Your task to perform on an android device: turn smart compose on in the gmail app Image 0: 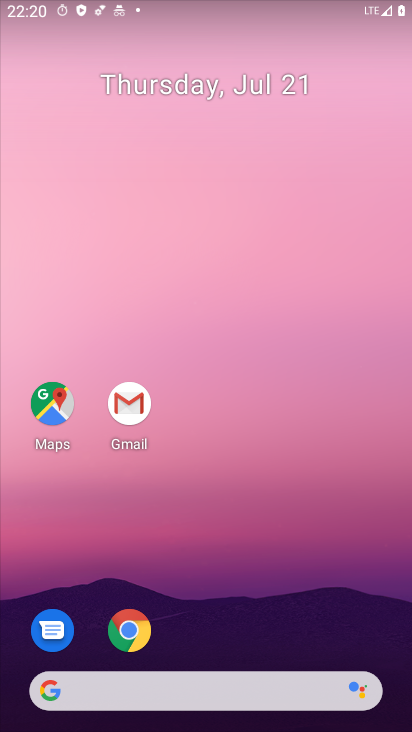
Step 0: drag from (203, 496) to (173, 50)
Your task to perform on an android device: turn smart compose on in the gmail app Image 1: 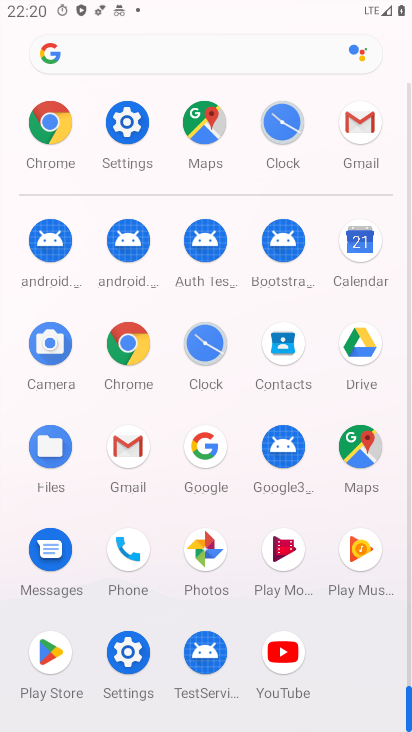
Step 1: click (114, 446)
Your task to perform on an android device: turn smart compose on in the gmail app Image 2: 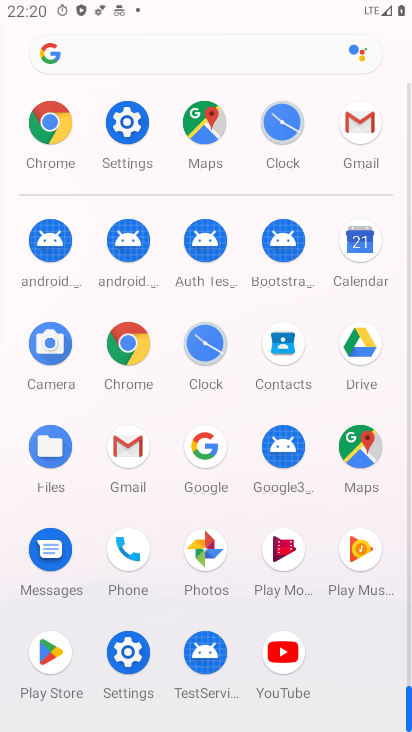
Step 2: click (130, 446)
Your task to perform on an android device: turn smart compose on in the gmail app Image 3: 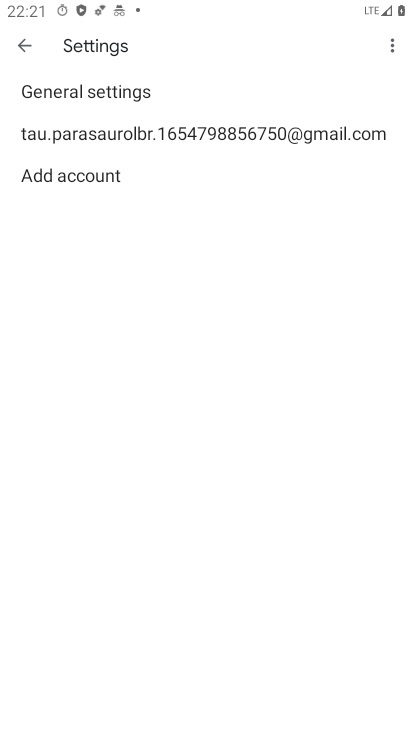
Step 3: click (101, 148)
Your task to perform on an android device: turn smart compose on in the gmail app Image 4: 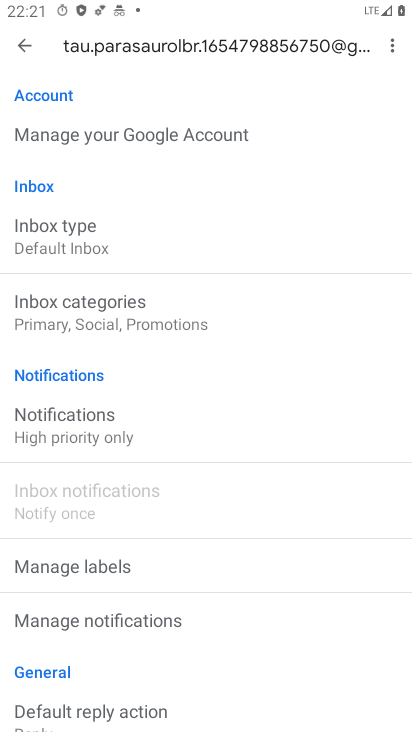
Step 4: drag from (145, 383) to (202, 139)
Your task to perform on an android device: turn smart compose on in the gmail app Image 5: 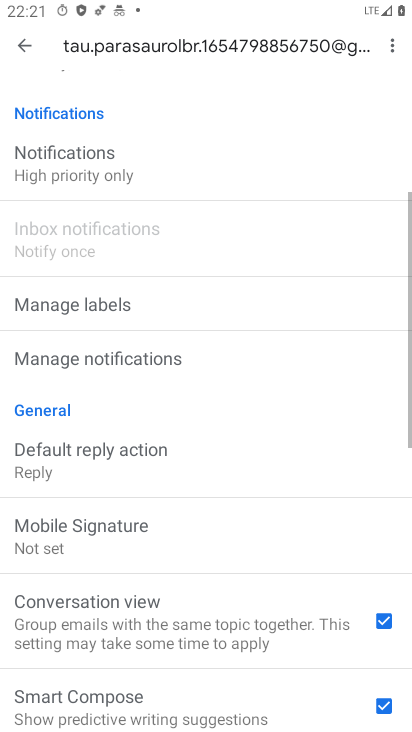
Step 5: drag from (193, 491) to (178, 182)
Your task to perform on an android device: turn smart compose on in the gmail app Image 6: 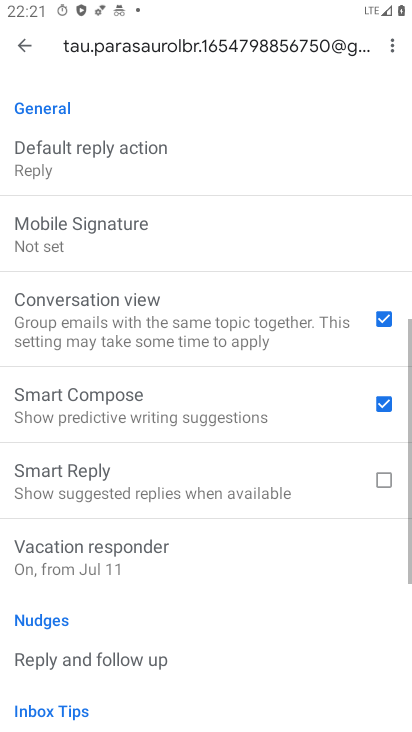
Step 6: drag from (186, 445) to (182, 245)
Your task to perform on an android device: turn smart compose on in the gmail app Image 7: 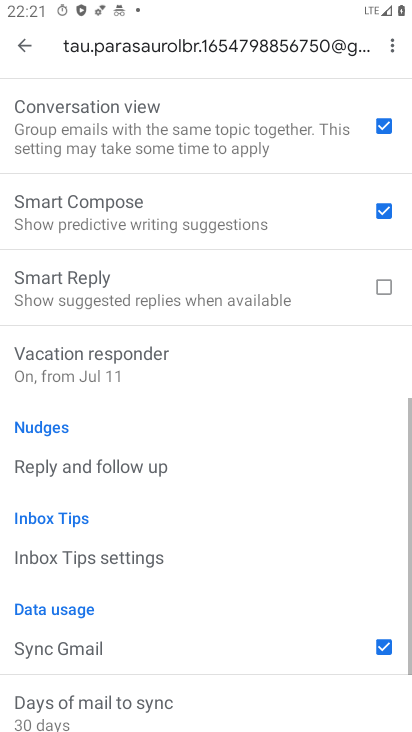
Step 7: drag from (174, 472) to (156, 245)
Your task to perform on an android device: turn smart compose on in the gmail app Image 8: 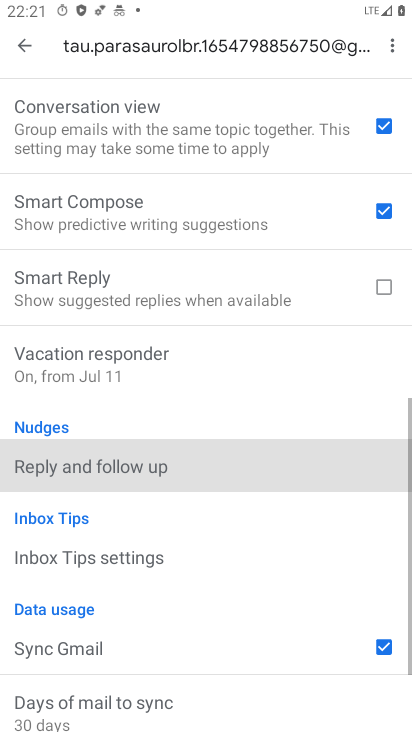
Step 8: drag from (217, 376) to (217, 263)
Your task to perform on an android device: turn smart compose on in the gmail app Image 9: 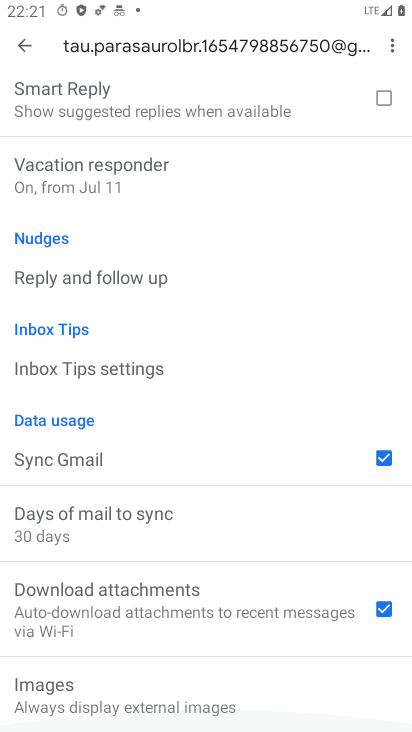
Step 9: click (370, 465)
Your task to perform on an android device: turn smart compose on in the gmail app Image 10: 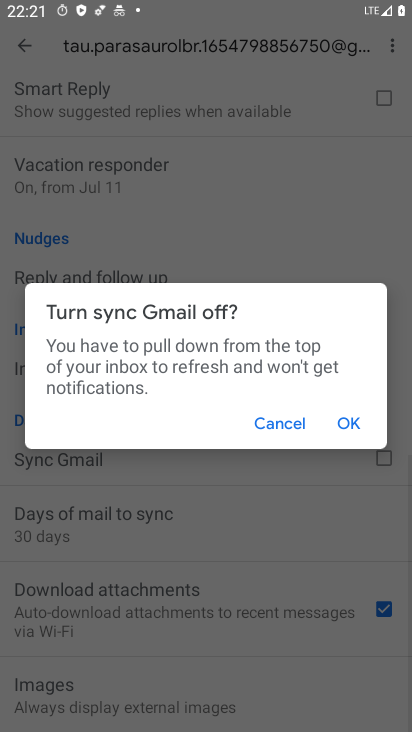
Step 10: click (303, 422)
Your task to perform on an android device: turn smart compose on in the gmail app Image 11: 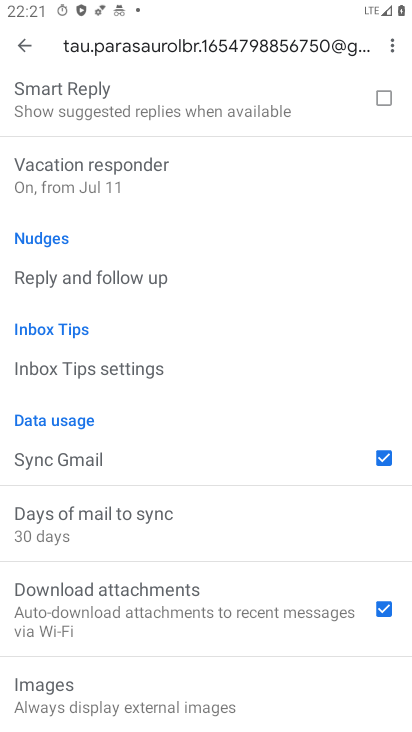
Step 11: drag from (104, 408) to (101, 365)
Your task to perform on an android device: turn smart compose on in the gmail app Image 12: 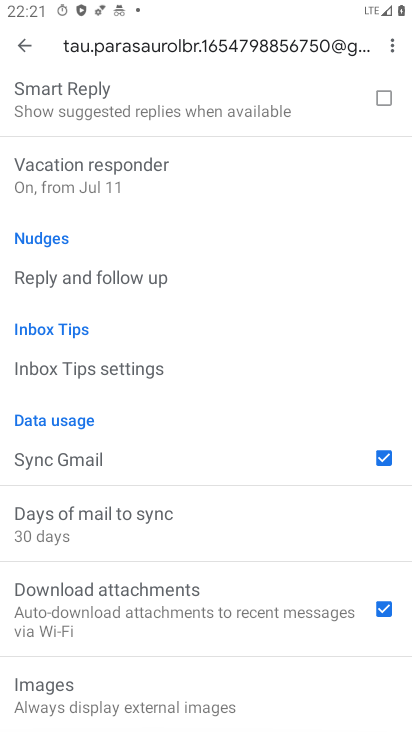
Step 12: drag from (152, 552) to (152, 343)
Your task to perform on an android device: turn smart compose on in the gmail app Image 13: 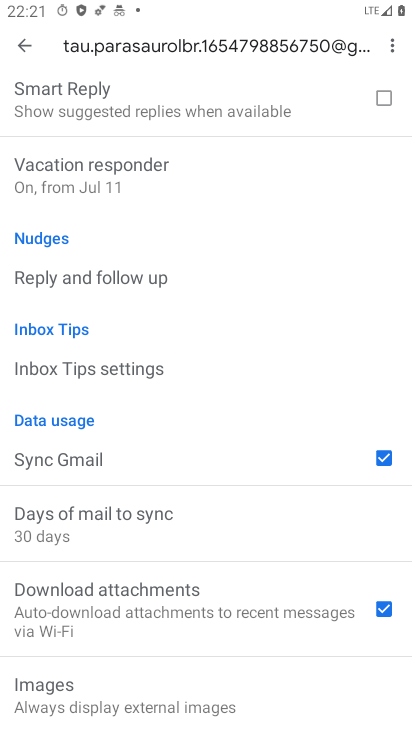
Step 13: drag from (154, 330) to (217, 595)
Your task to perform on an android device: turn smart compose on in the gmail app Image 14: 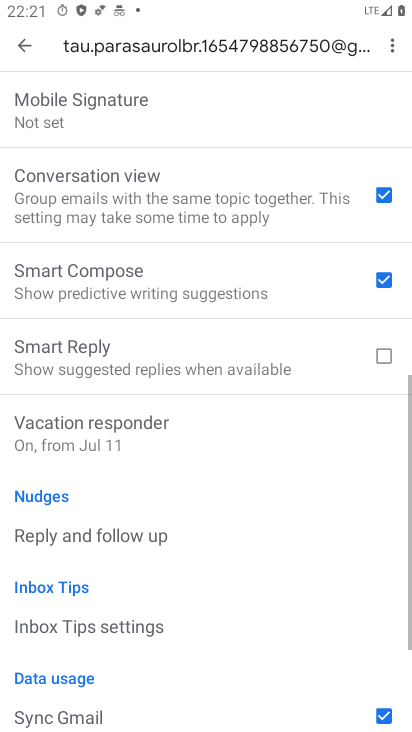
Step 14: click (201, 456)
Your task to perform on an android device: turn smart compose on in the gmail app Image 15: 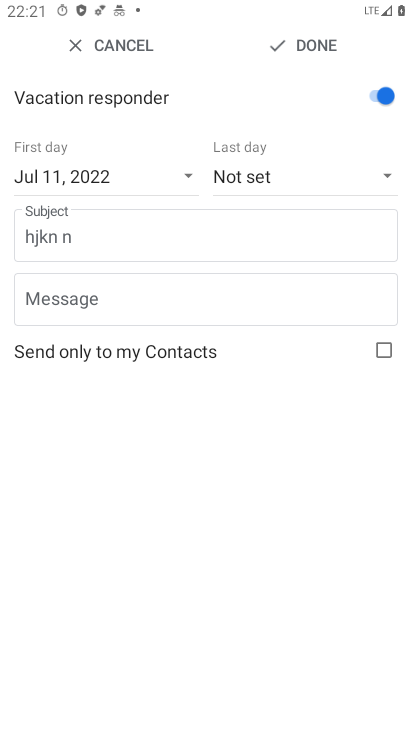
Step 15: click (387, 347)
Your task to perform on an android device: turn smart compose on in the gmail app Image 16: 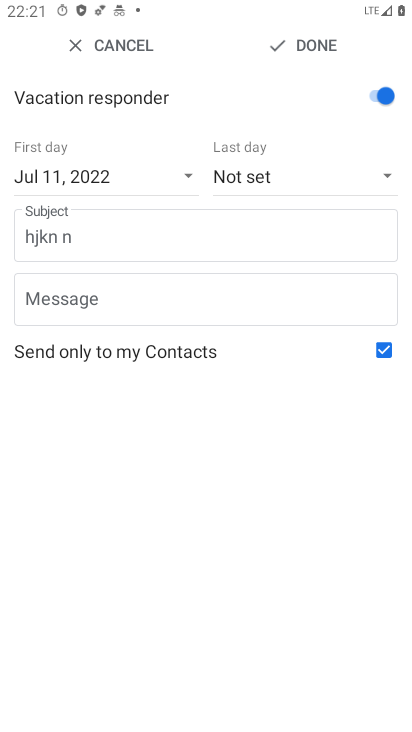
Step 16: click (384, 346)
Your task to perform on an android device: turn smart compose on in the gmail app Image 17: 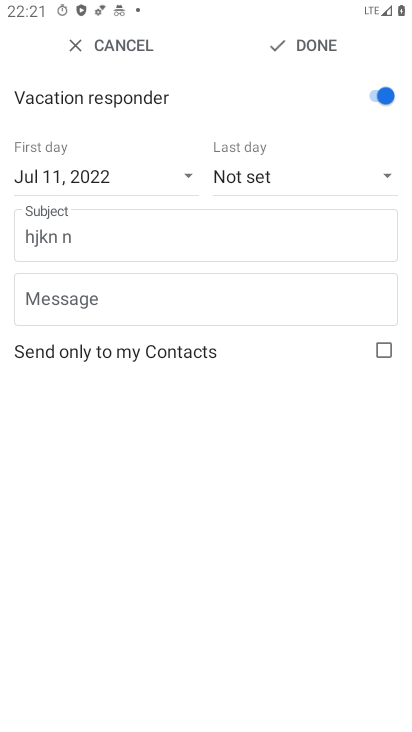
Step 17: click (385, 343)
Your task to perform on an android device: turn smart compose on in the gmail app Image 18: 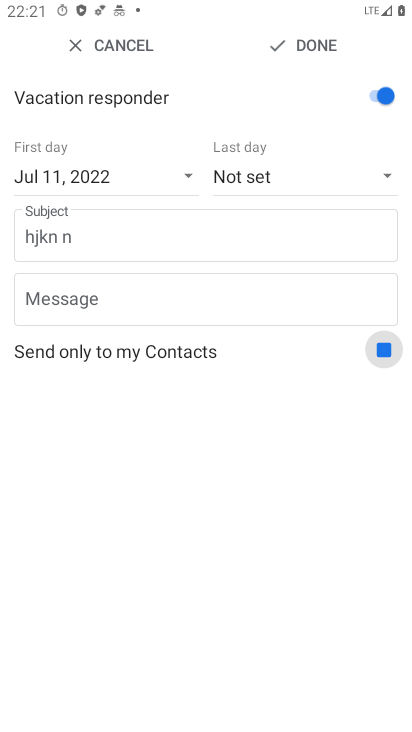
Step 18: press back button
Your task to perform on an android device: turn smart compose on in the gmail app Image 19: 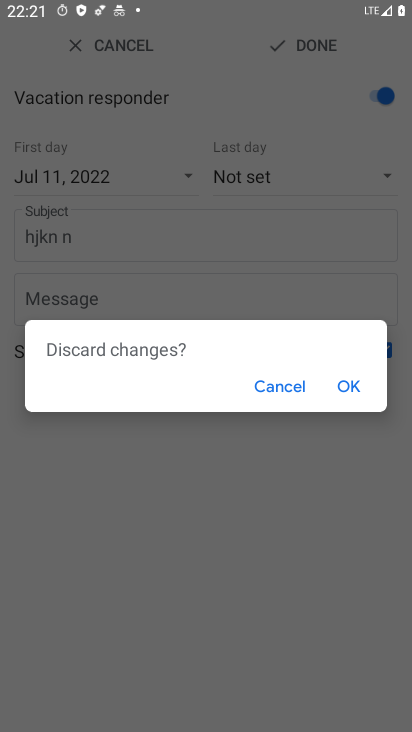
Step 19: click (284, 397)
Your task to perform on an android device: turn smart compose on in the gmail app Image 20: 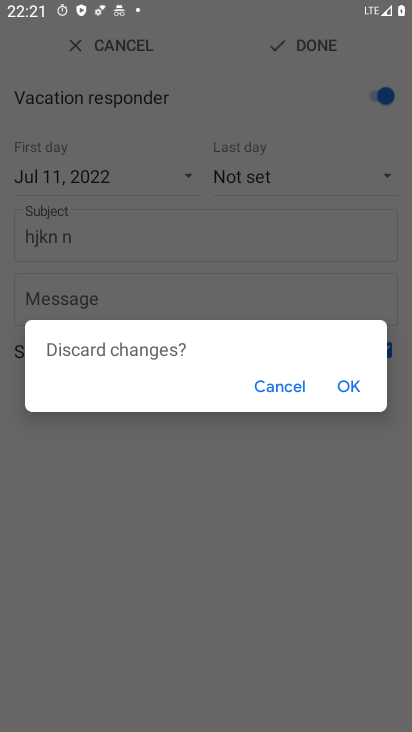
Step 20: click (285, 396)
Your task to perform on an android device: turn smart compose on in the gmail app Image 21: 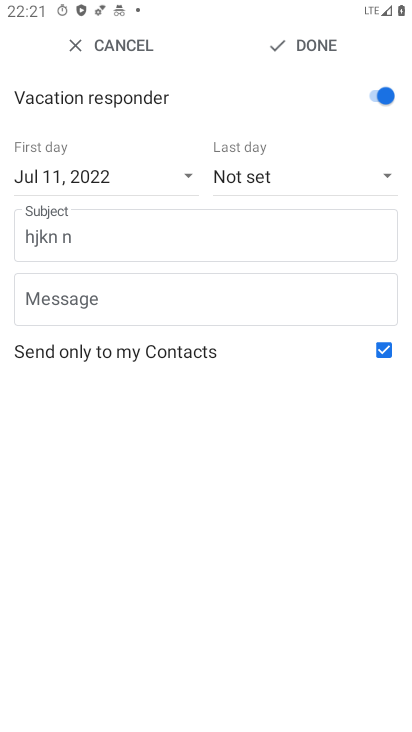
Step 21: click (292, 385)
Your task to perform on an android device: turn smart compose on in the gmail app Image 22: 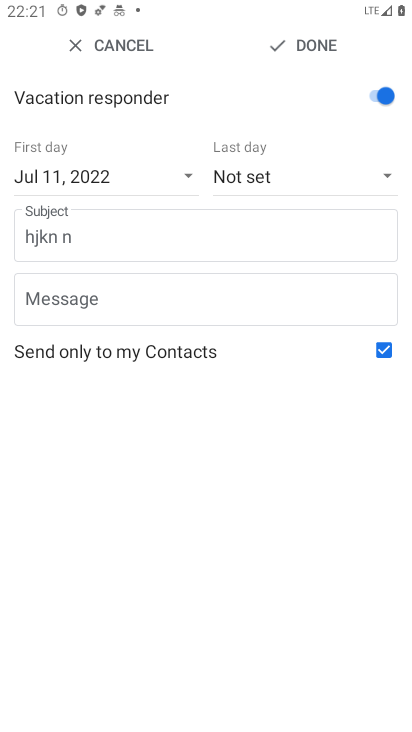
Step 22: press back button
Your task to perform on an android device: turn smart compose on in the gmail app Image 23: 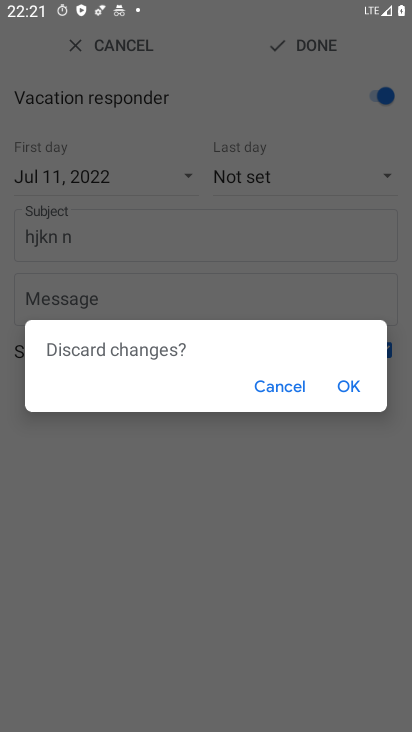
Step 23: click (354, 382)
Your task to perform on an android device: turn smart compose on in the gmail app Image 24: 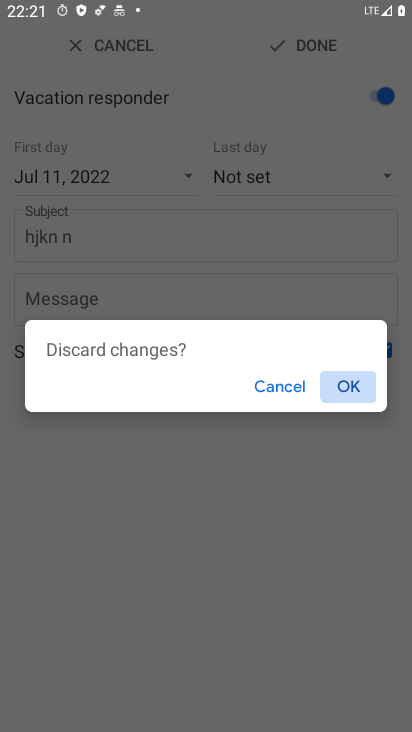
Step 24: click (346, 386)
Your task to perform on an android device: turn smart compose on in the gmail app Image 25: 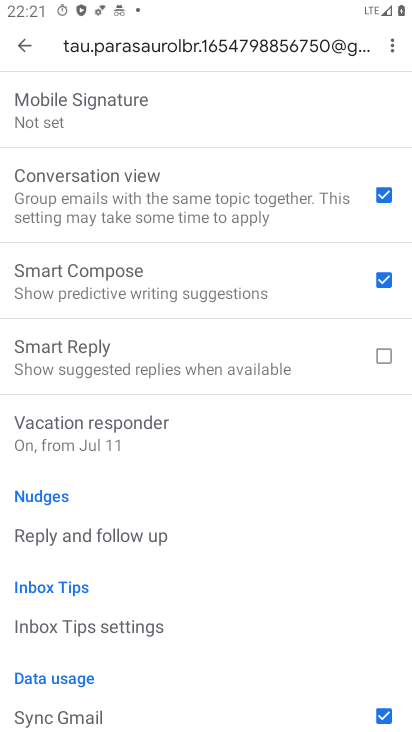
Step 25: click (379, 361)
Your task to perform on an android device: turn smart compose on in the gmail app Image 26: 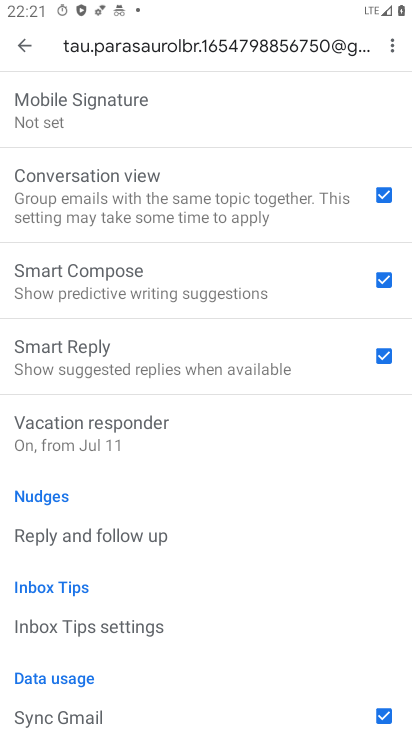
Step 26: task complete